Your task to perform on an android device: clear history in the chrome app Image 0: 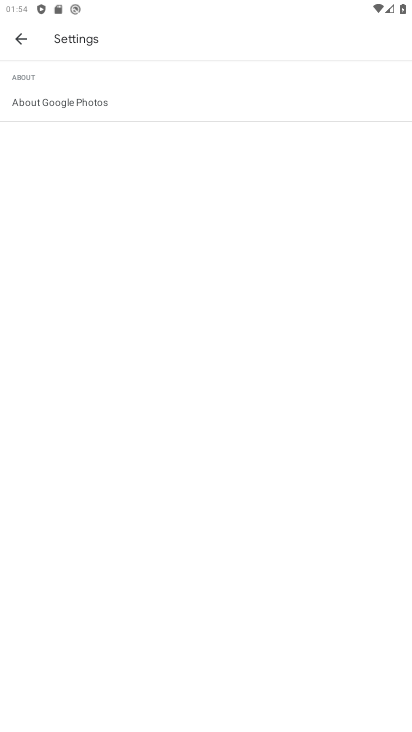
Step 0: press home button
Your task to perform on an android device: clear history in the chrome app Image 1: 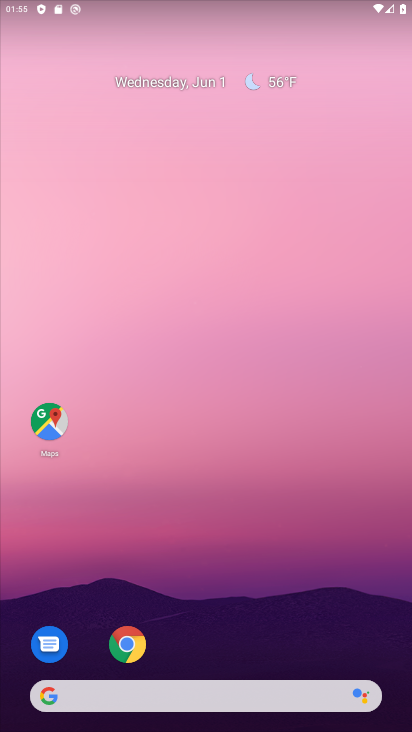
Step 1: click (131, 640)
Your task to perform on an android device: clear history in the chrome app Image 2: 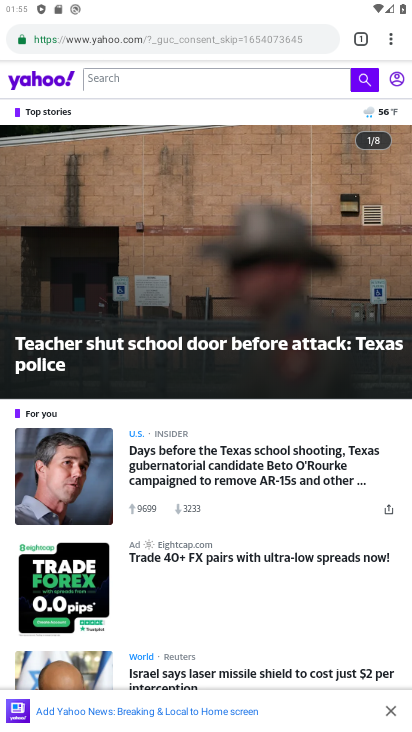
Step 2: click (395, 43)
Your task to perform on an android device: clear history in the chrome app Image 3: 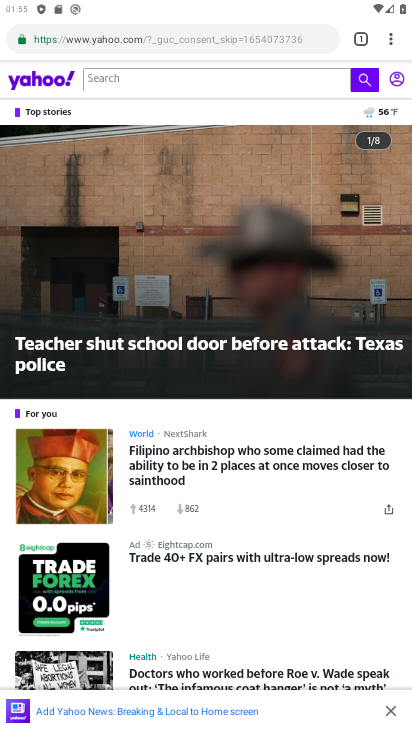
Step 3: click (389, 38)
Your task to perform on an android device: clear history in the chrome app Image 4: 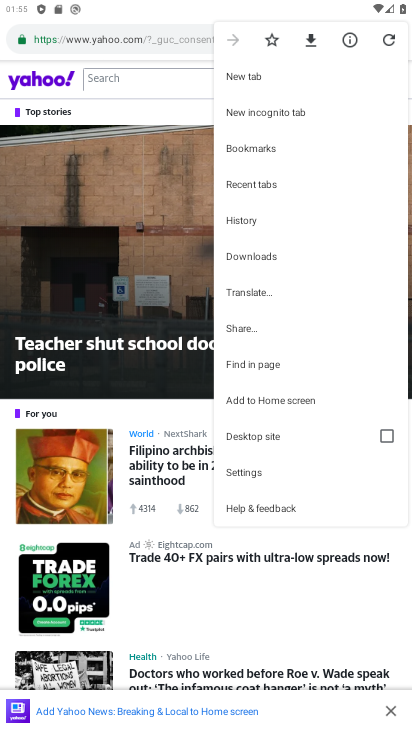
Step 4: click (253, 222)
Your task to perform on an android device: clear history in the chrome app Image 5: 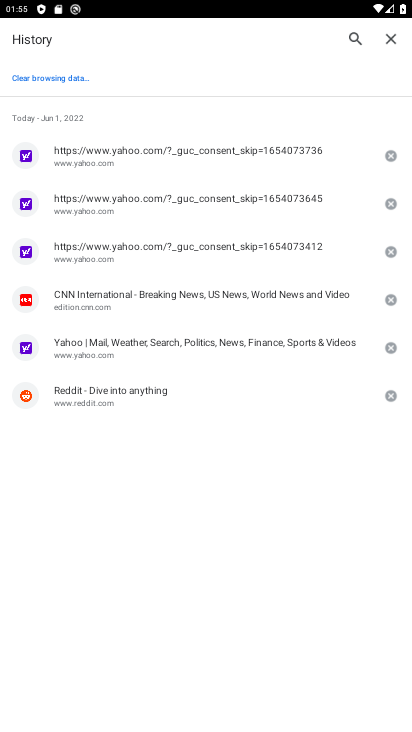
Step 5: click (70, 82)
Your task to perform on an android device: clear history in the chrome app Image 6: 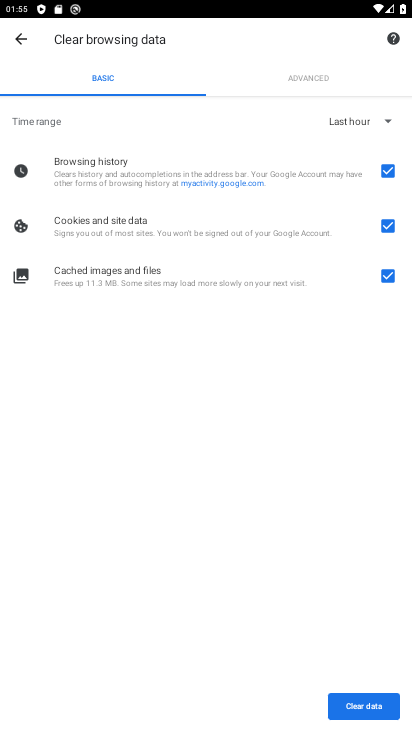
Step 6: click (348, 704)
Your task to perform on an android device: clear history in the chrome app Image 7: 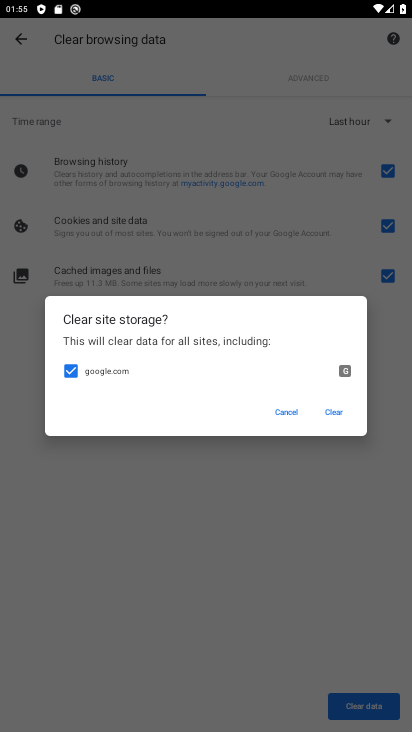
Step 7: click (342, 414)
Your task to perform on an android device: clear history in the chrome app Image 8: 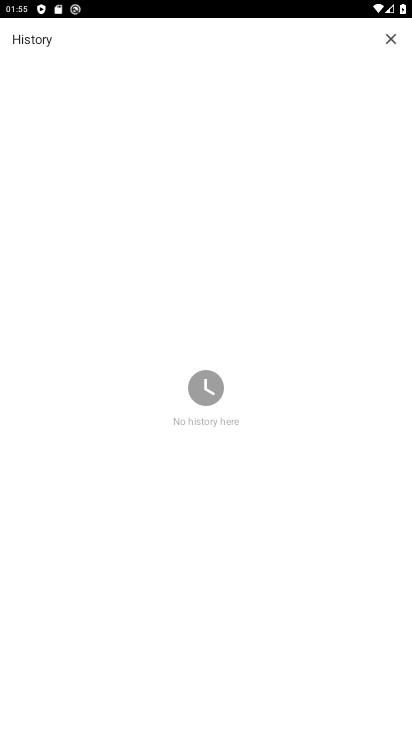
Step 8: task complete